Your task to perform on an android device: change the clock display to digital Image 0: 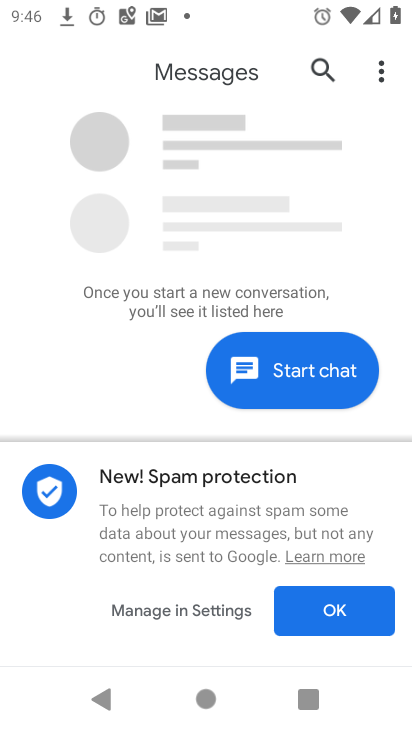
Step 0: press home button
Your task to perform on an android device: change the clock display to digital Image 1: 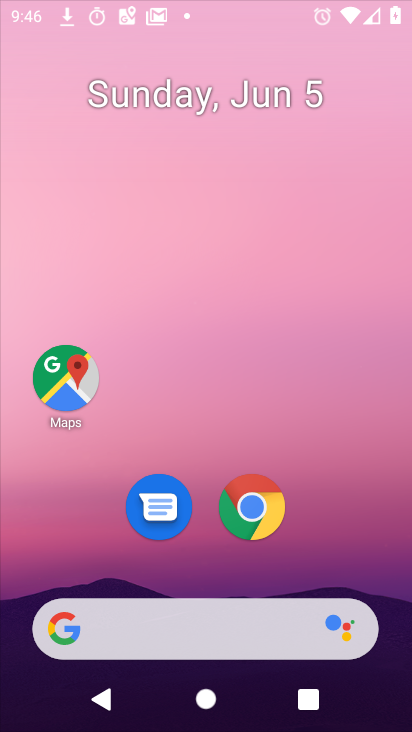
Step 1: drag from (247, 676) to (244, 266)
Your task to perform on an android device: change the clock display to digital Image 2: 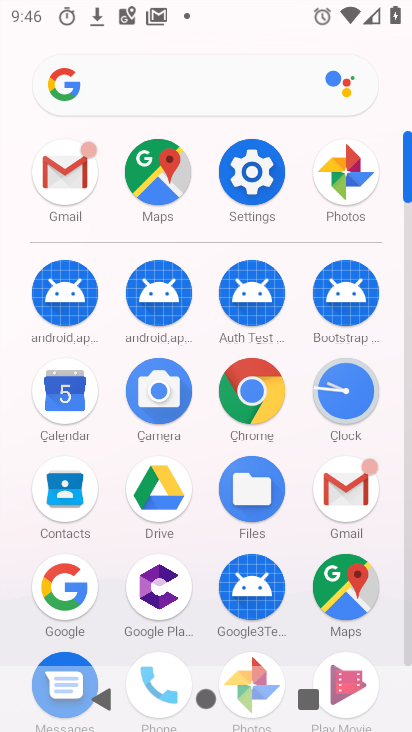
Step 2: click (243, 164)
Your task to perform on an android device: change the clock display to digital Image 3: 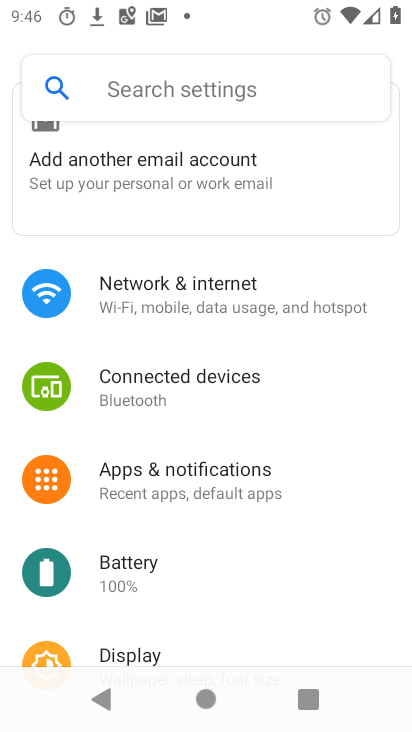
Step 3: click (105, 90)
Your task to perform on an android device: change the clock display to digital Image 4: 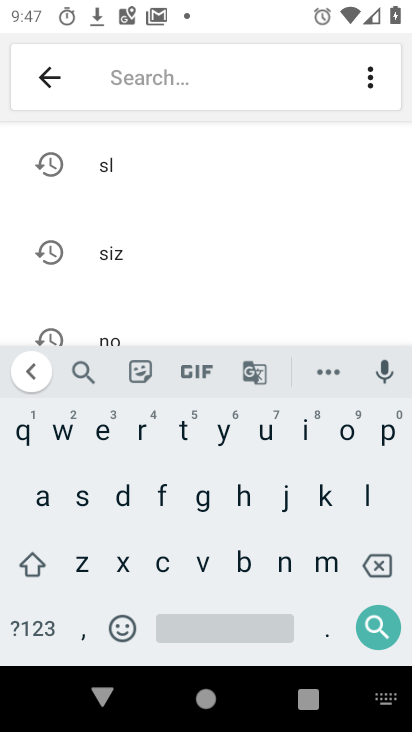
Step 4: click (120, 493)
Your task to perform on an android device: change the clock display to digital Image 5: 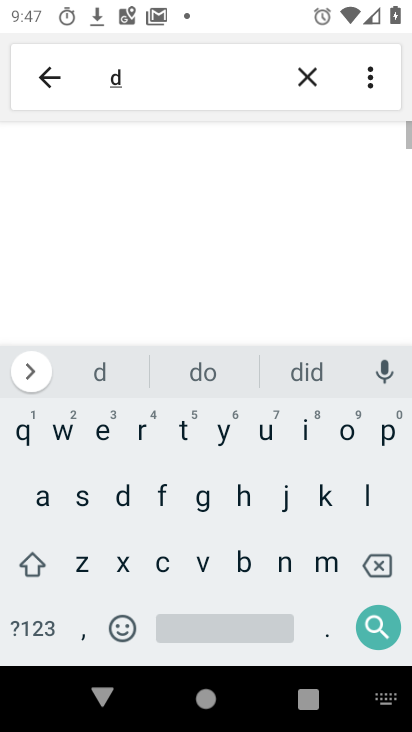
Step 5: click (345, 423)
Your task to perform on an android device: change the clock display to digital Image 6: 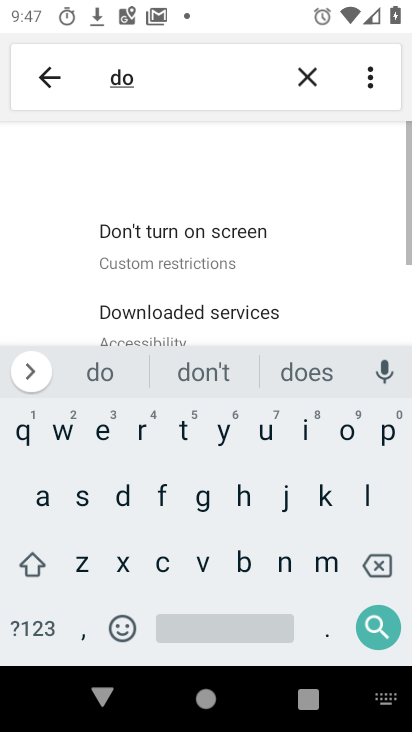
Step 6: click (185, 432)
Your task to perform on an android device: change the clock display to digital Image 7: 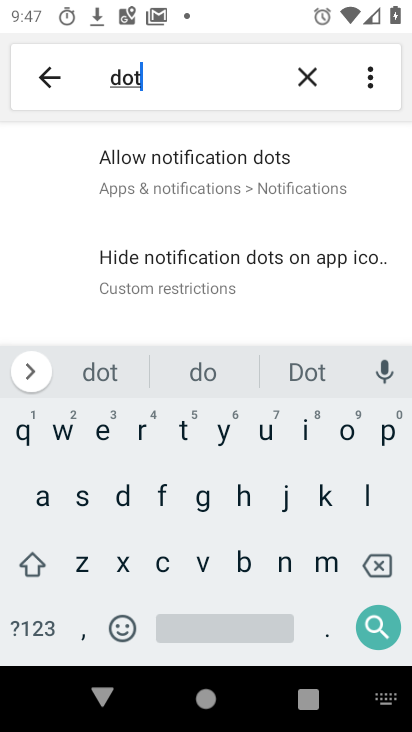
Step 7: click (259, 159)
Your task to perform on an android device: change the clock display to digital Image 8: 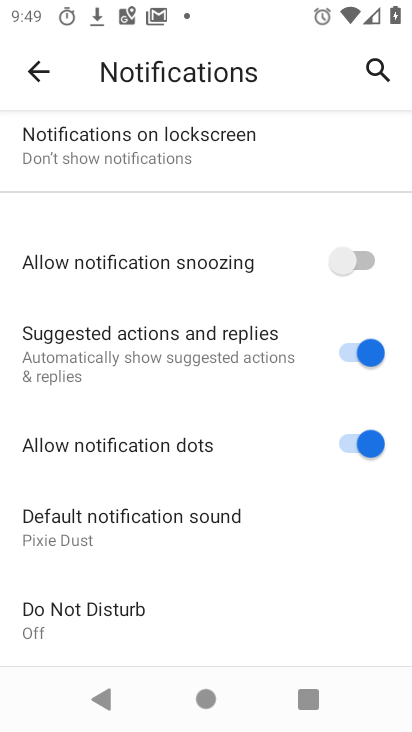
Step 8: task complete